Your task to perform on an android device: Open Amazon Image 0: 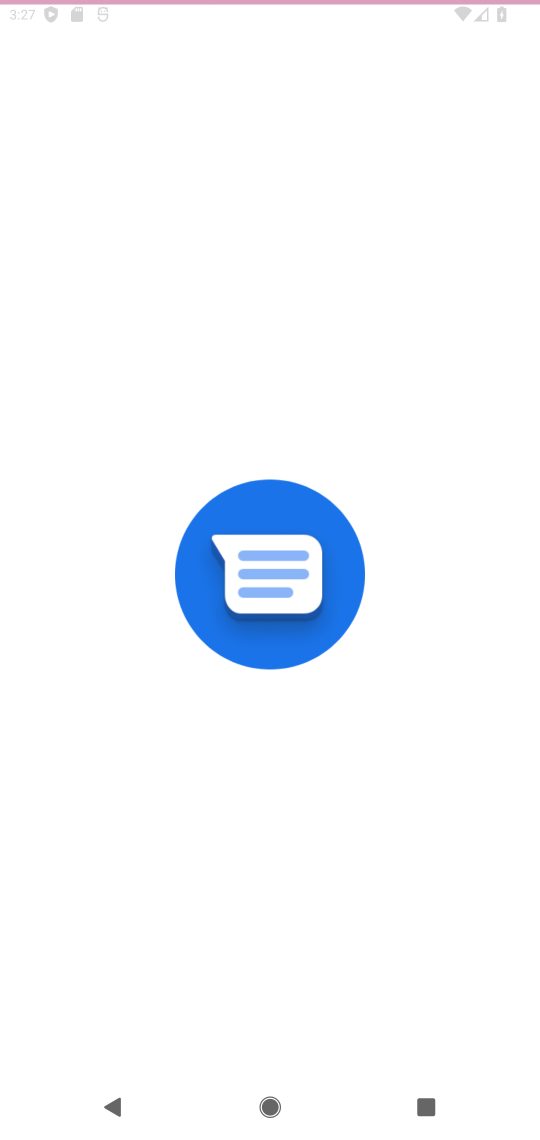
Step 0: press home button
Your task to perform on an android device: Open Amazon Image 1: 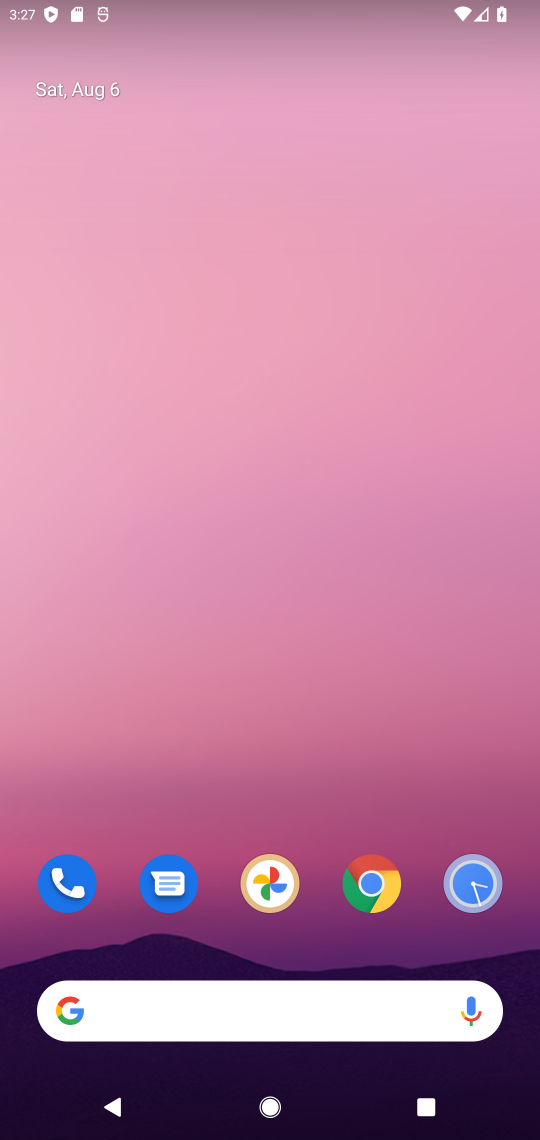
Step 1: click (363, 876)
Your task to perform on an android device: Open Amazon Image 2: 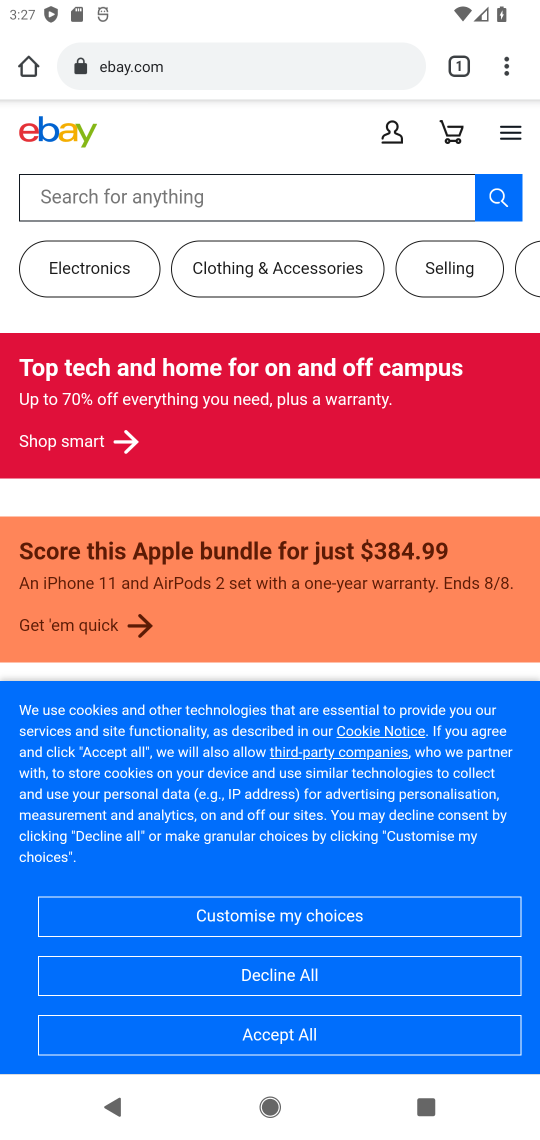
Step 2: drag from (459, 64) to (449, 425)
Your task to perform on an android device: Open Amazon Image 3: 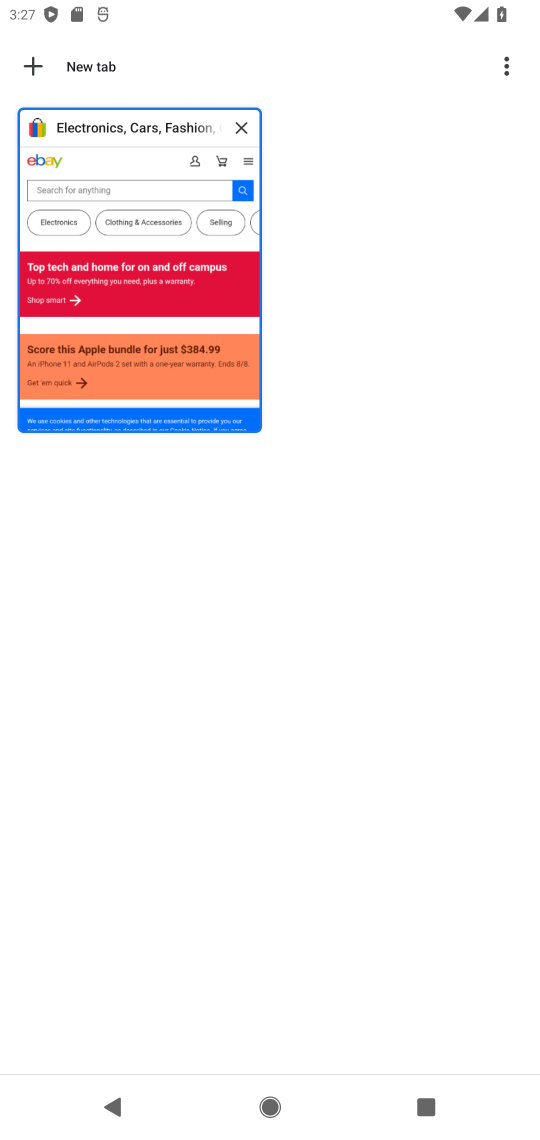
Step 3: click (41, 65)
Your task to perform on an android device: Open Amazon Image 4: 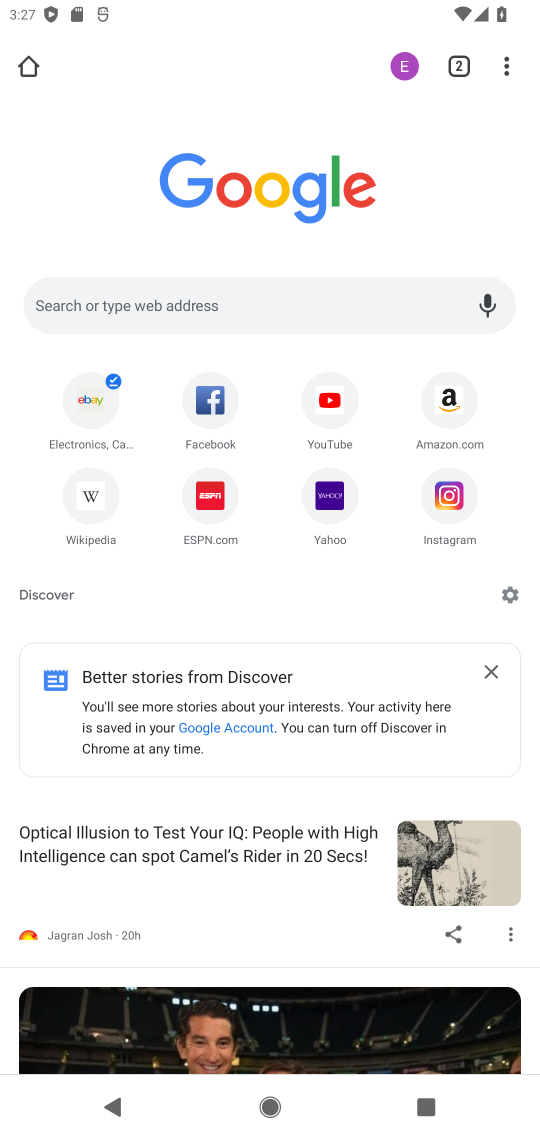
Step 4: click (452, 413)
Your task to perform on an android device: Open Amazon Image 5: 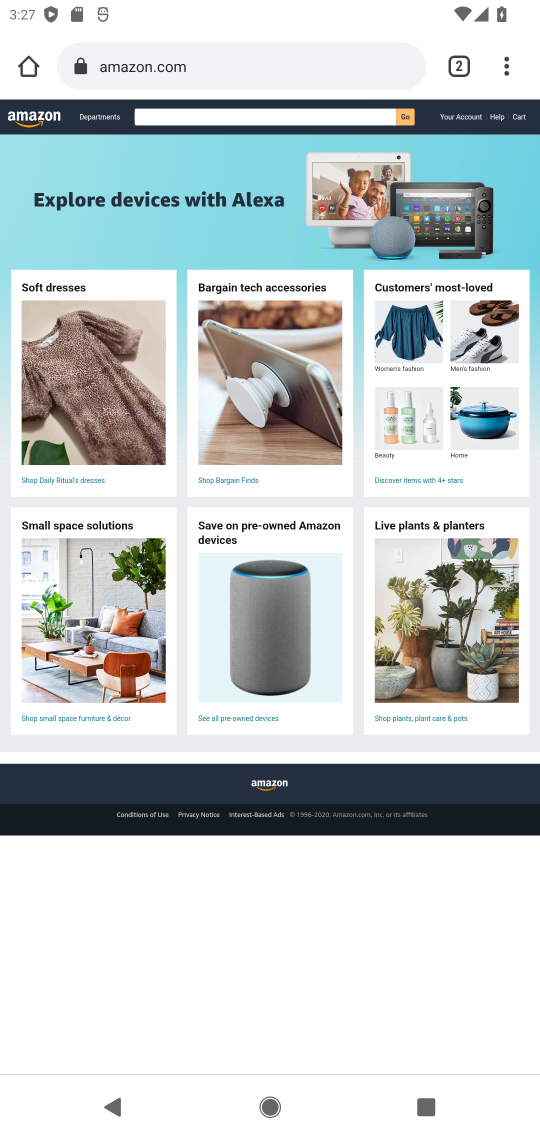
Step 5: task complete